Your task to perform on an android device: Open Amazon Image 0: 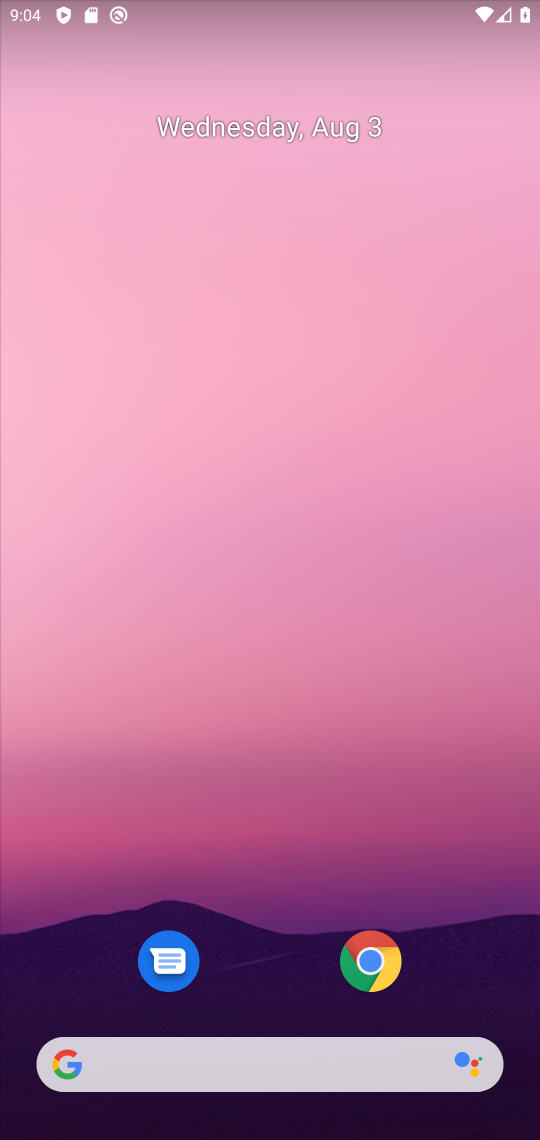
Step 0: click (348, 965)
Your task to perform on an android device: Open Amazon Image 1: 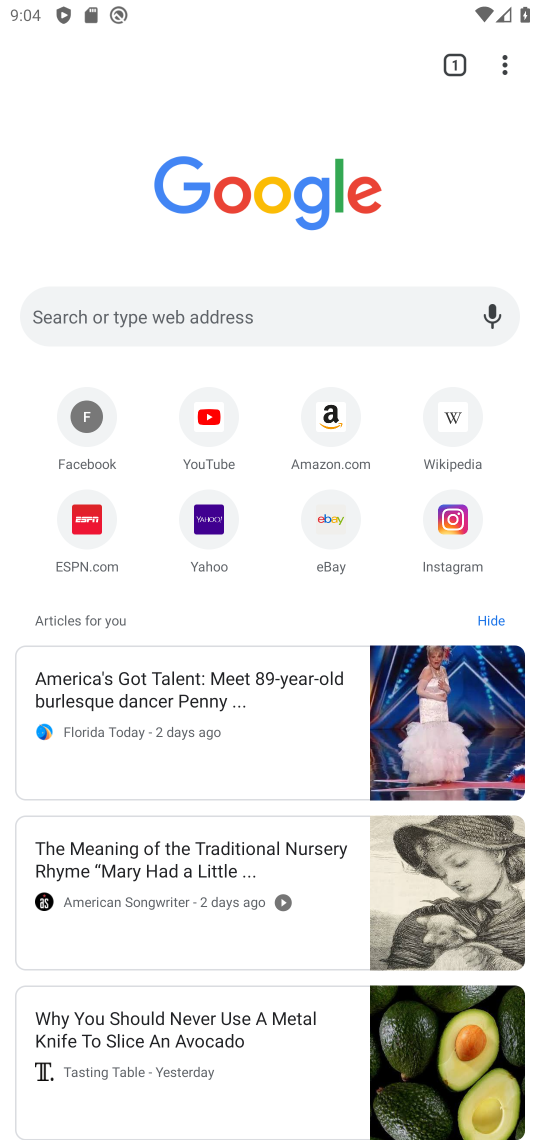
Step 1: click (334, 404)
Your task to perform on an android device: Open Amazon Image 2: 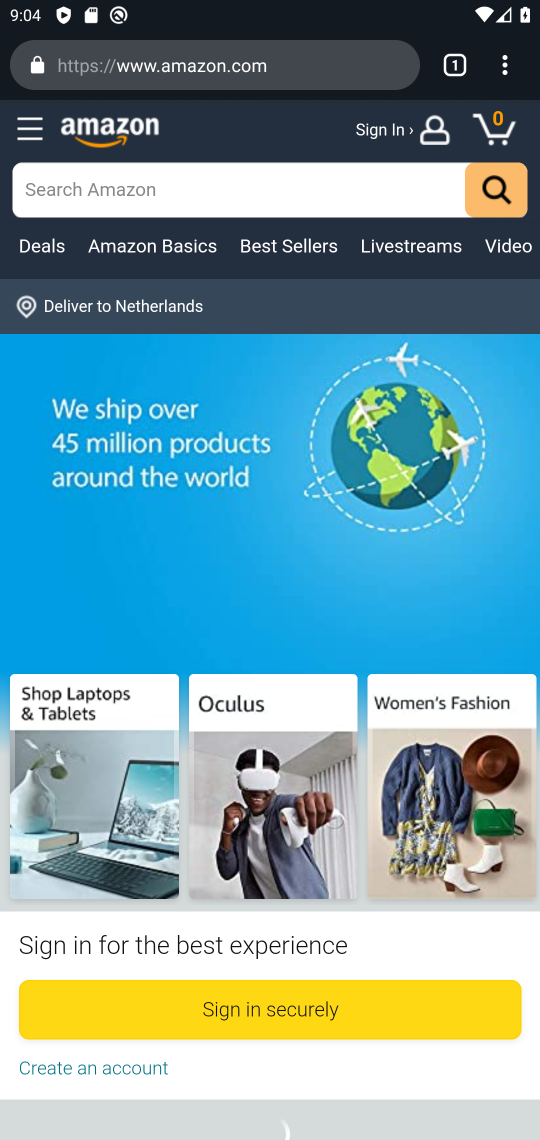
Step 2: task complete